Your task to perform on an android device: Is it going to rain tomorrow? Image 0: 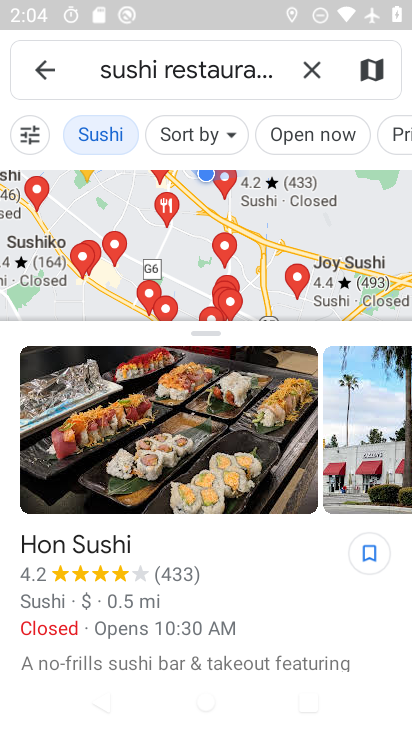
Step 0: press home button
Your task to perform on an android device: Is it going to rain tomorrow? Image 1: 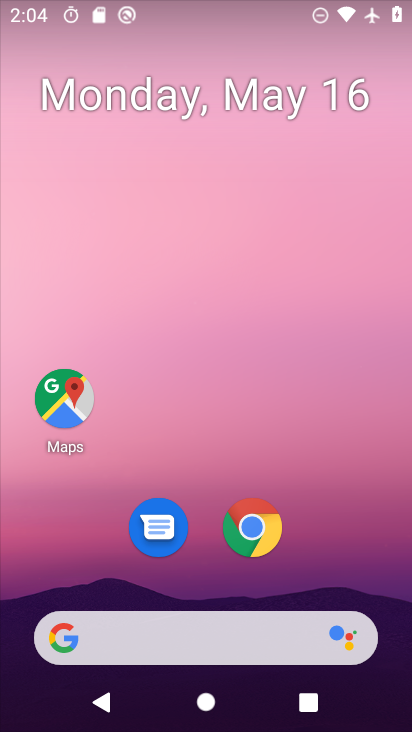
Step 1: click (70, 641)
Your task to perform on an android device: Is it going to rain tomorrow? Image 2: 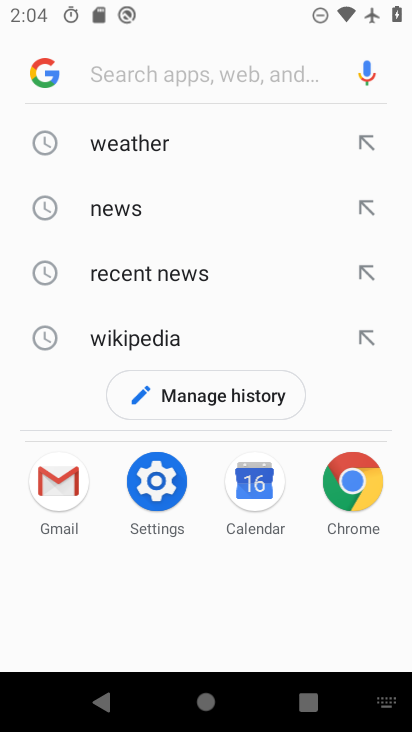
Step 2: click (140, 151)
Your task to perform on an android device: Is it going to rain tomorrow? Image 3: 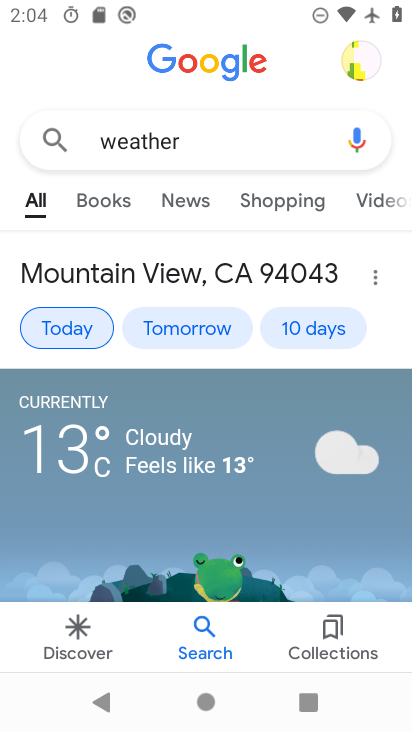
Step 3: task complete